Your task to perform on an android device: turn on improve location accuracy Image 0: 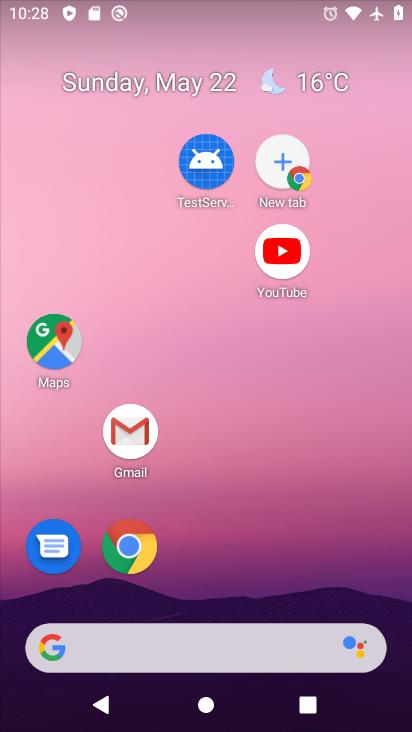
Step 0: press back button
Your task to perform on an android device: turn on improve location accuracy Image 1: 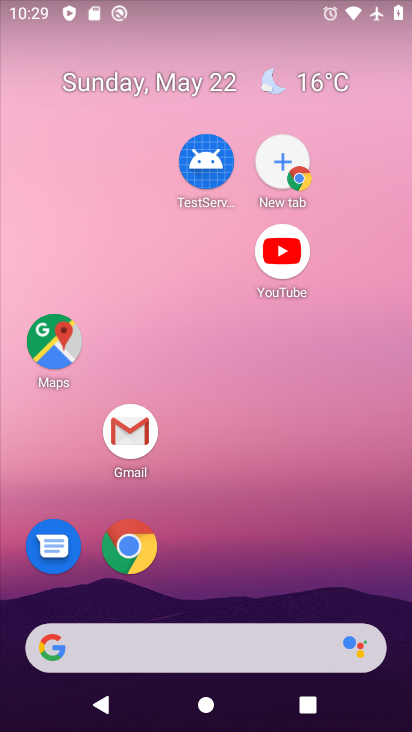
Step 1: drag from (280, 677) to (201, 29)
Your task to perform on an android device: turn on improve location accuracy Image 2: 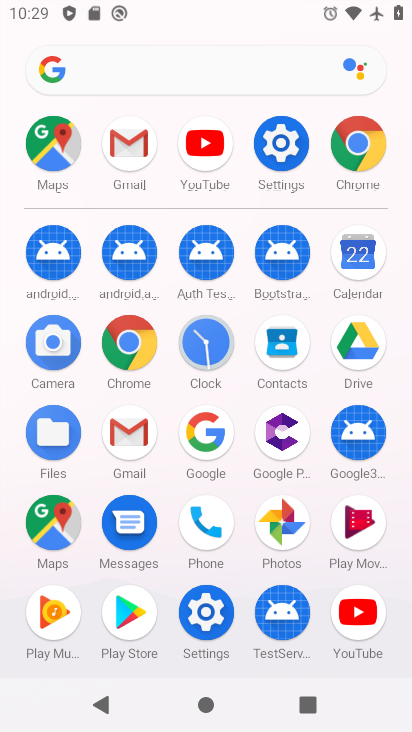
Step 2: click (259, 146)
Your task to perform on an android device: turn on improve location accuracy Image 3: 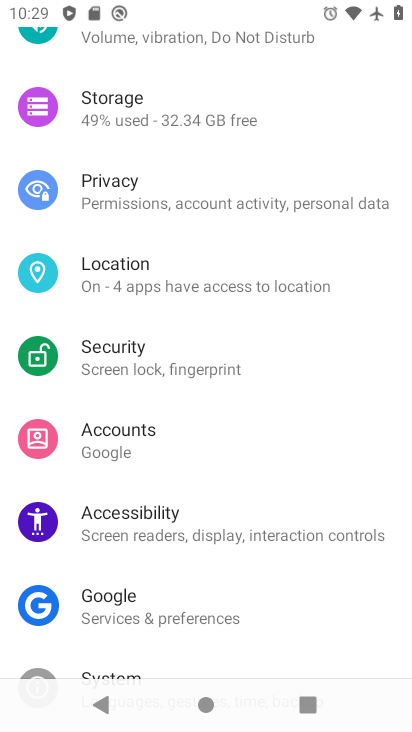
Step 3: drag from (212, 574) to (216, 141)
Your task to perform on an android device: turn on improve location accuracy Image 4: 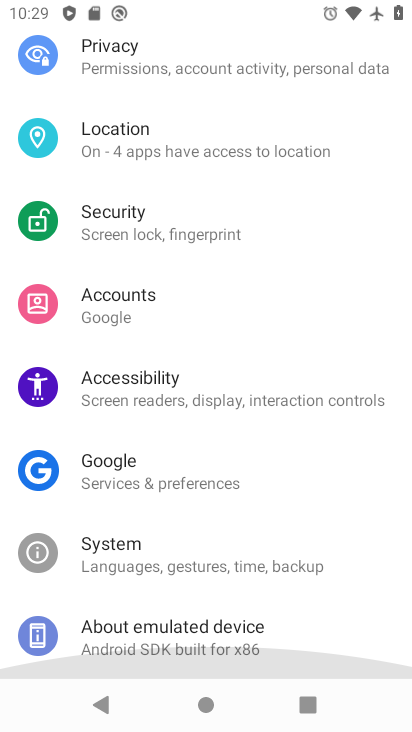
Step 4: drag from (148, 360) to (178, 153)
Your task to perform on an android device: turn on improve location accuracy Image 5: 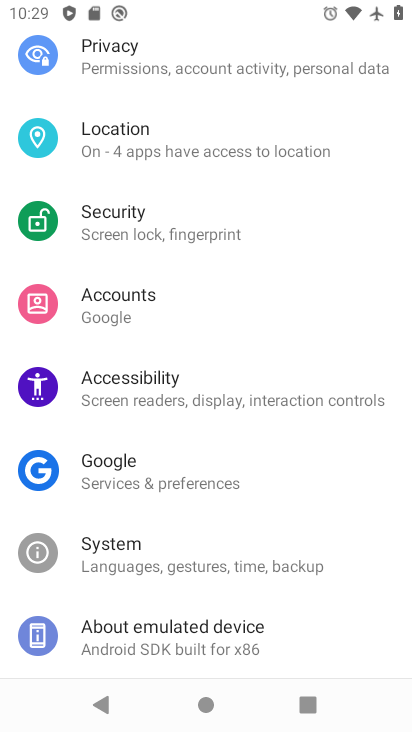
Step 5: click (152, 143)
Your task to perform on an android device: turn on improve location accuracy Image 6: 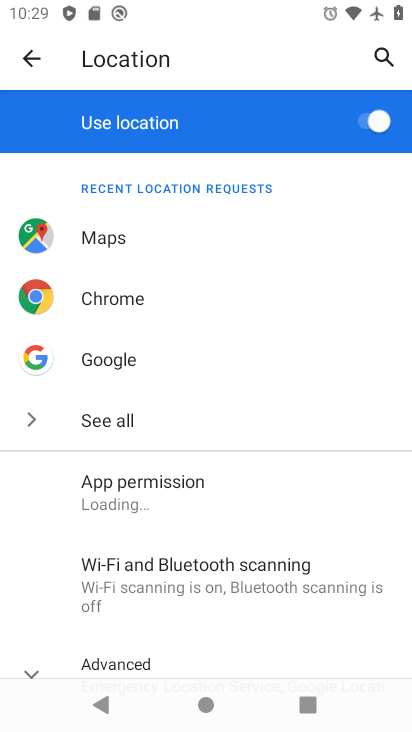
Step 6: drag from (180, 526) to (183, 27)
Your task to perform on an android device: turn on improve location accuracy Image 7: 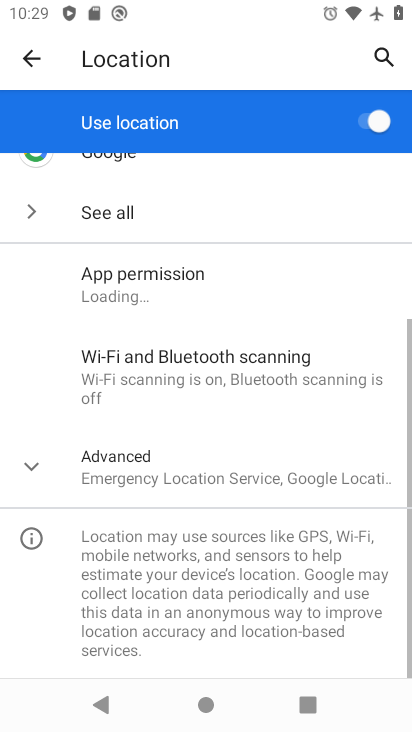
Step 7: drag from (216, 446) to (197, 113)
Your task to perform on an android device: turn on improve location accuracy Image 8: 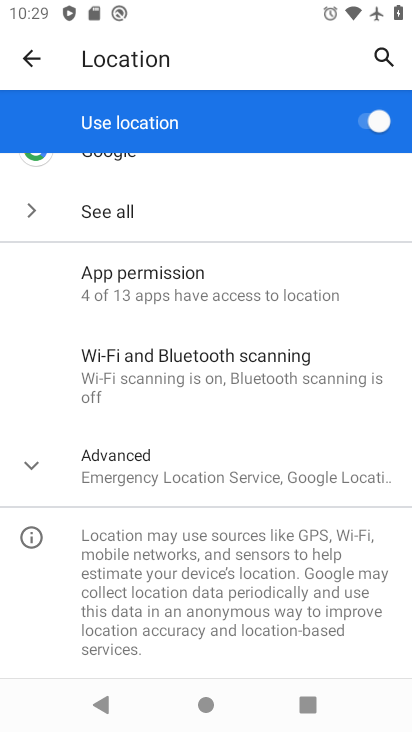
Step 8: click (126, 458)
Your task to perform on an android device: turn on improve location accuracy Image 9: 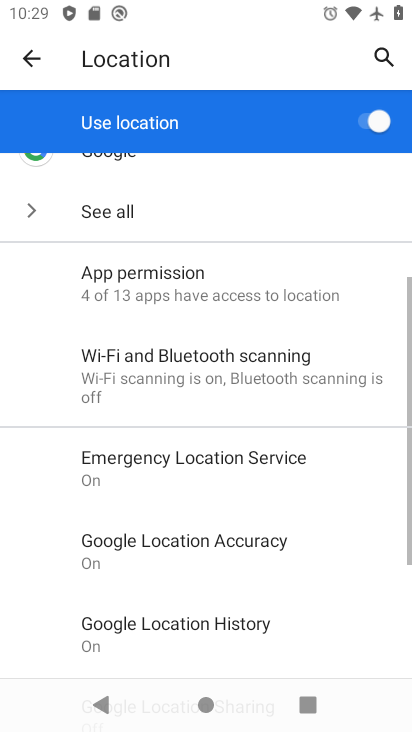
Step 9: drag from (197, 540) to (196, 105)
Your task to perform on an android device: turn on improve location accuracy Image 10: 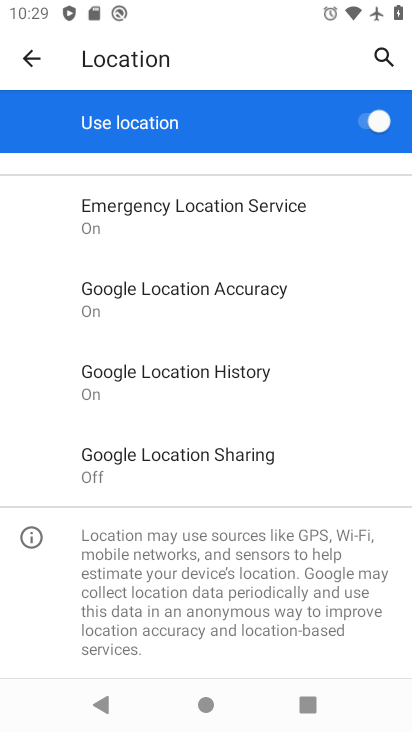
Step 10: click (161, 282)
Your task to perform on an android device: turn on improve location accuracy Image 11: 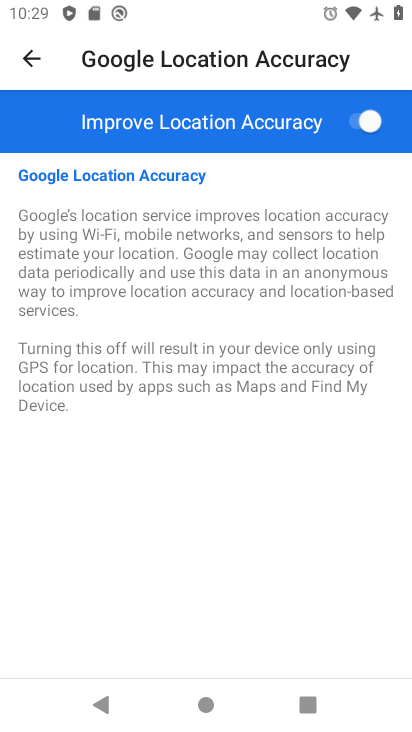
Step 11: task complete